Your task to perform on an android device: show emergency info Image 0: 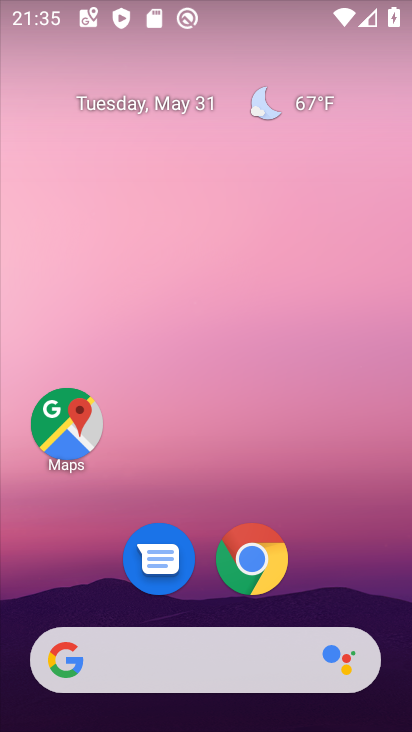
Step 0: drag from (341, 555) to (343, 40)
Your task to perform on an android device: show emergency info Image 1: 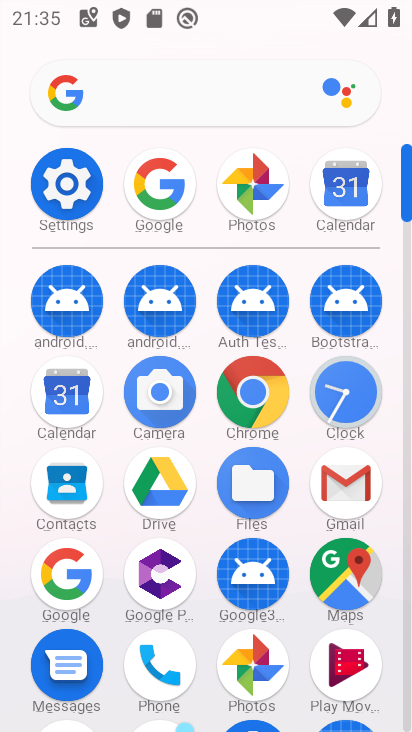
Step 1: click (56, 183)
Your task to perform on an android device: show emergency info Image 2: 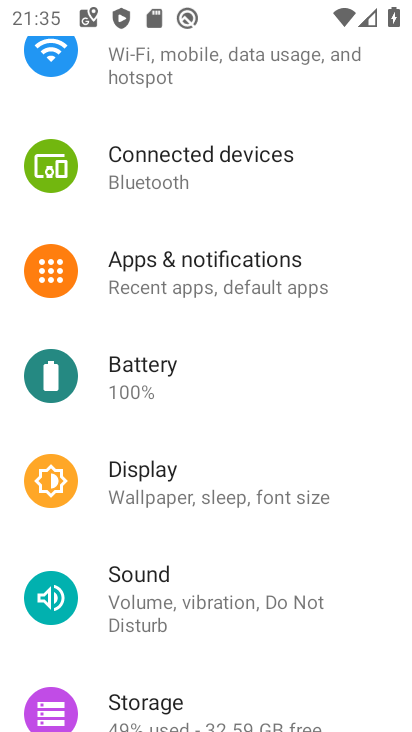
Step 2: drag from (274, 637) to (235, 74)
Your task to perform on an android device: show emergency info Image 3: 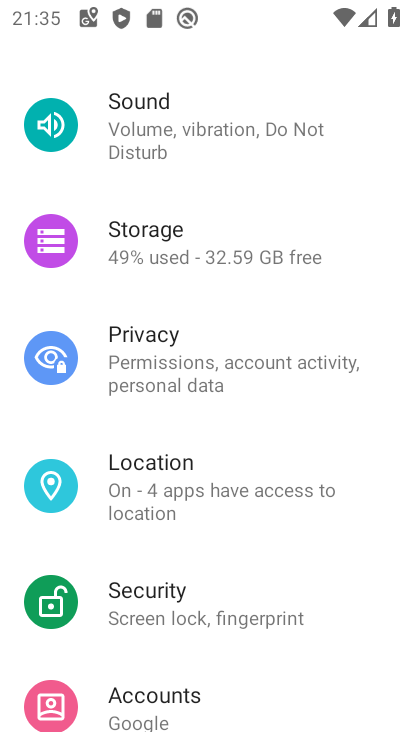
Step 3: drag from (242, 686) to (253, 95)
Your task to perform on an android device: show emergency info Image 4: 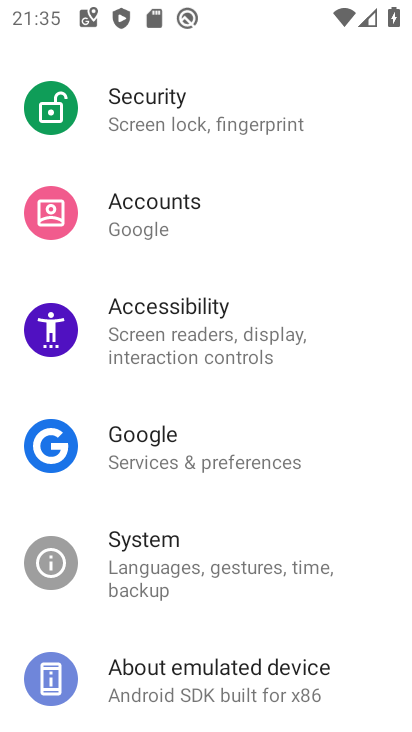
Step 4: click (164, 689)
Your task to perform on an android device: show emergency info Image 5: 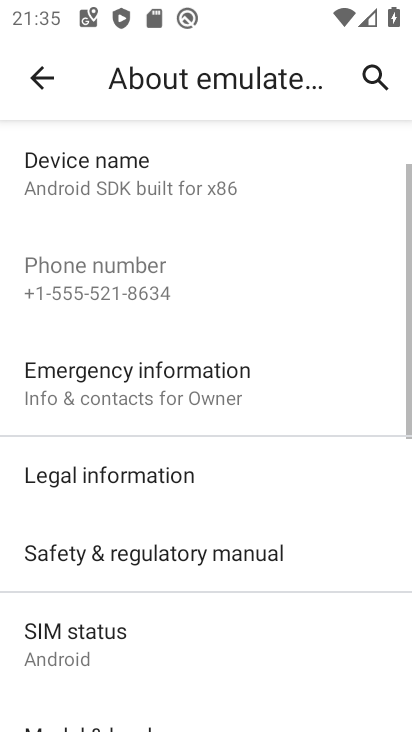
Step 5: click (161, 375)
Your task to perform on an android device: show emergency info Image 6: 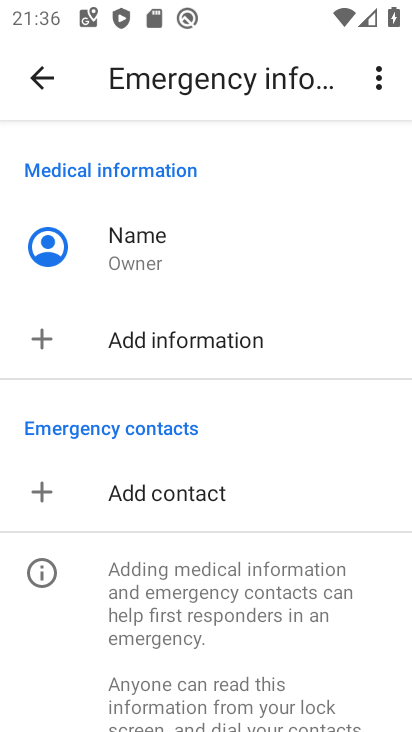
Step 6: task complete